Your task to perform on an android device: open app "Gmail" (install if not already installed) Image 0: 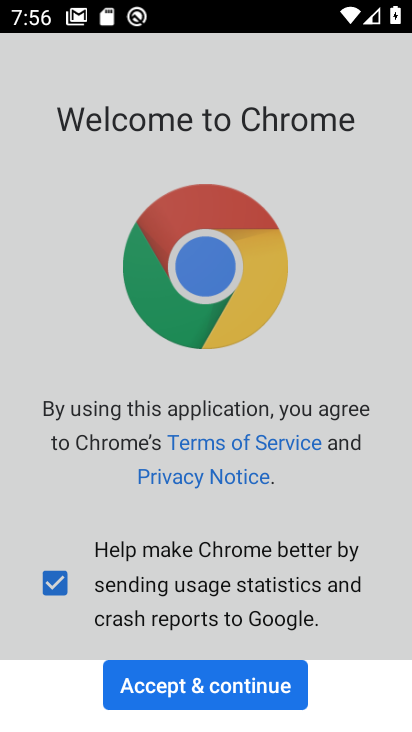
Step 0: press home button
Your task to perform on an android device: open app "Gmail" (install if not already installed) Image 1: 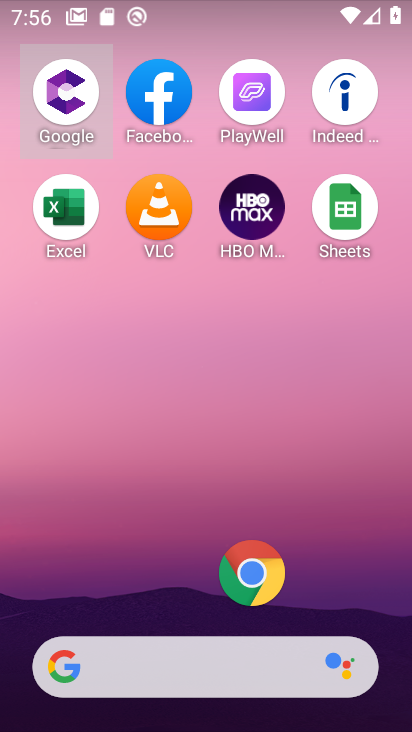
Step 1: drag from (170, 584) to (186, 73)
Your task to perform on an android device: open app "Gmail" (install if not already installed) Image 2: 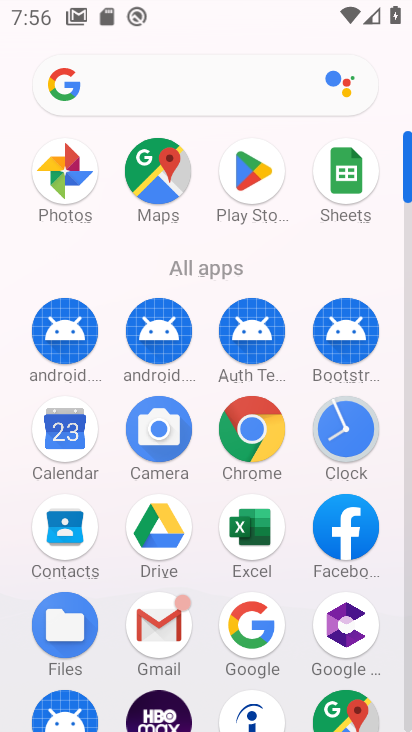
Step 2: click (245, 168)
Your task to perform on an android device: open app "Gmail" (install if not already installed) Image 3: 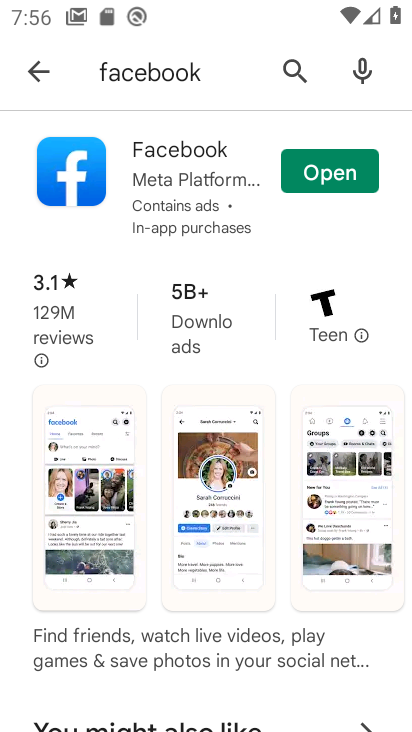
Step 3: click (35, 69)
Your task to perform on an android device: open app "Gmail" (install if not already installed) Image 4: 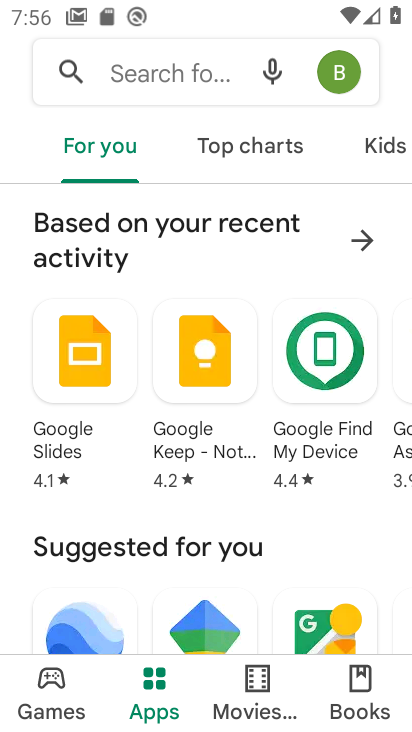
Step 4: click (152, 69)
Your task to perform on an android device: open app "Gmail" (install if not already installed) Image 5: 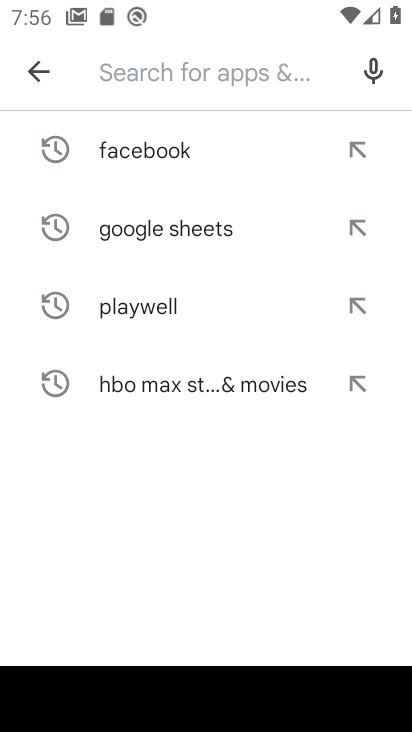
Step 5: type "Gmail"
Your task to perform on an android device: open app "Gmail" (install if not already installed) Image 6: 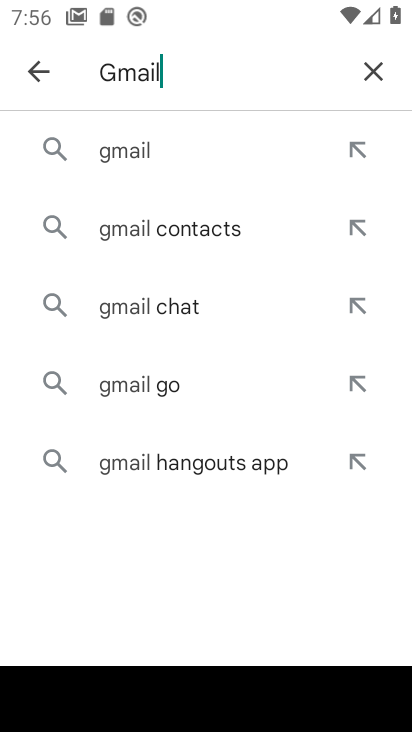
Step 6: click (124, 148)
Your task to perform on an android device: open app "Gmail" (install if not already installed) Image 7: 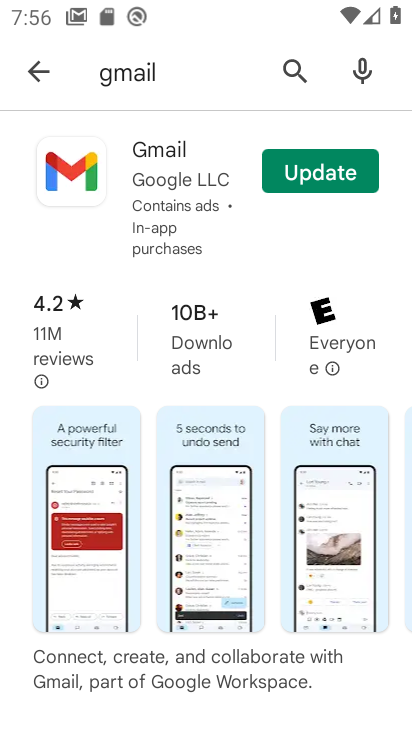
Step 7: click (304, 173)
Your task to perform on an android device: open app "Gmail" (install if not already installed) Image 8: 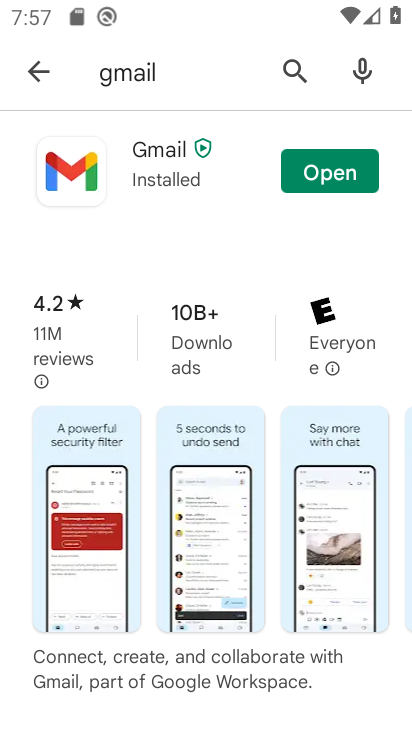
Step 8: click (295, 175)
Your task to perform on an android device: open app "Gmail" (install if not already installed) Image 9: 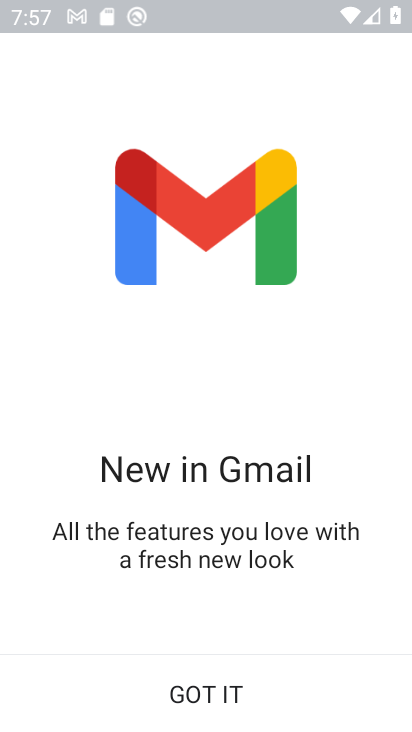
Step 9: click (204, 686)
Your task to perform on an android device: open app "Gmail" (install if not already installed) Image 10: 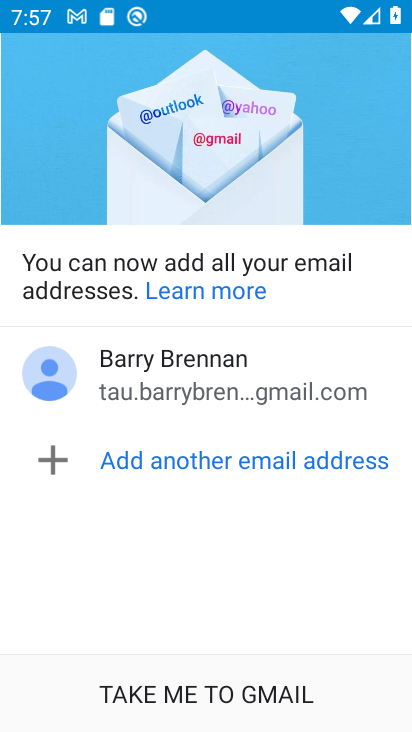
Step 10: click (204, 686)
Your task to perform on an android device: open app "Gmail" (install if not already installed) Image 11: 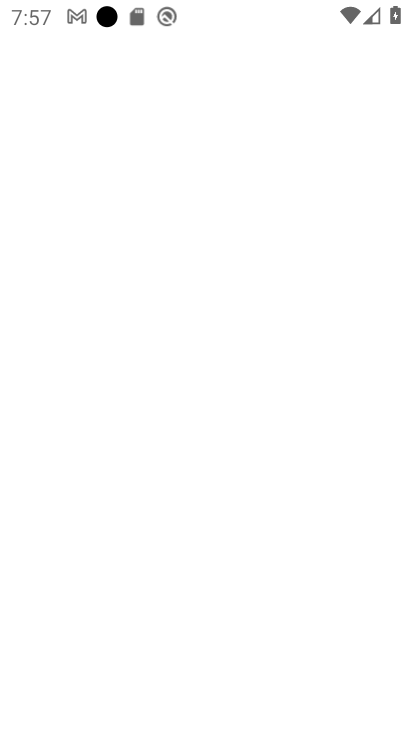
Step 11: click (204, 686)
Your task to perform on an android device: open app "Gmail" (install if not already installed) Image 12: 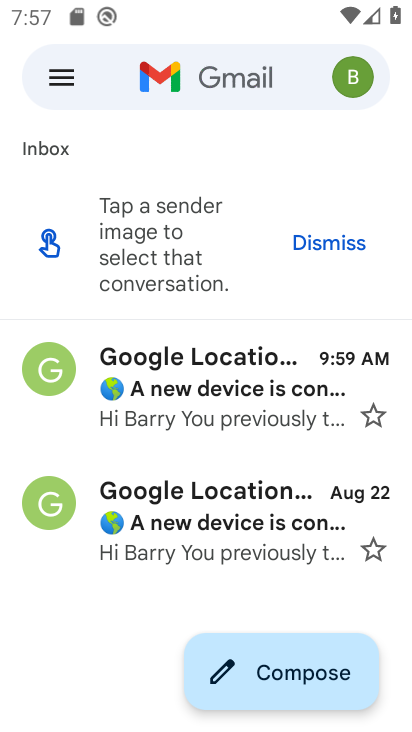
Step 12: task complete